Your task to perform on an android device: change the clock display to analog Image 0: 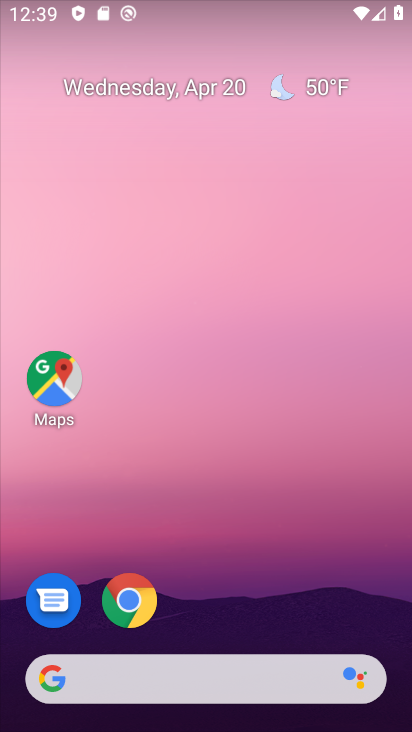
Step 0: drag from (203, 633) to (238, 61)
Your task to perform on an android device: change the clock display to analog Image 1: 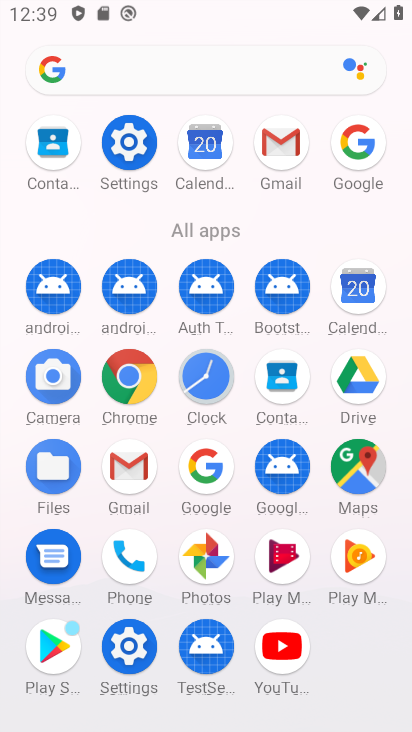
Step 1: click (194, 373)
Your task to perform on an android device: change the clock display to analog Image 2: 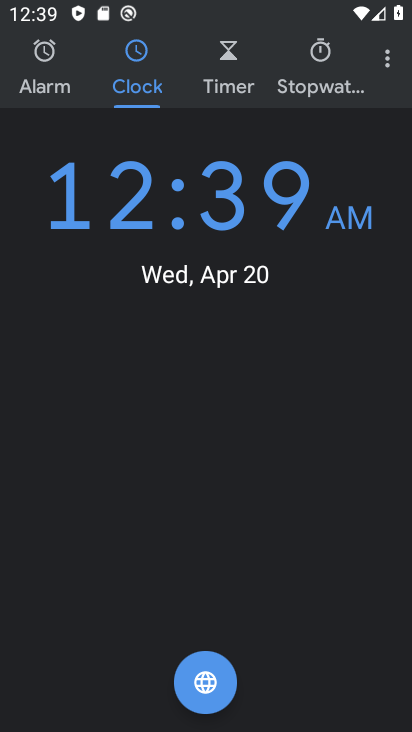
Step 2: click (385, 52)
Your task to perform on an android device: change the clock display to analog Image 3: 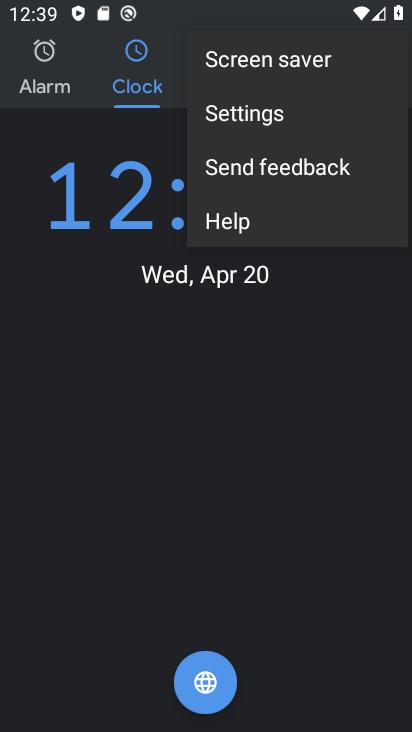
Step 3: click (256, 106)
Your task to perform on an android device: change the clock display to analog Image 4: 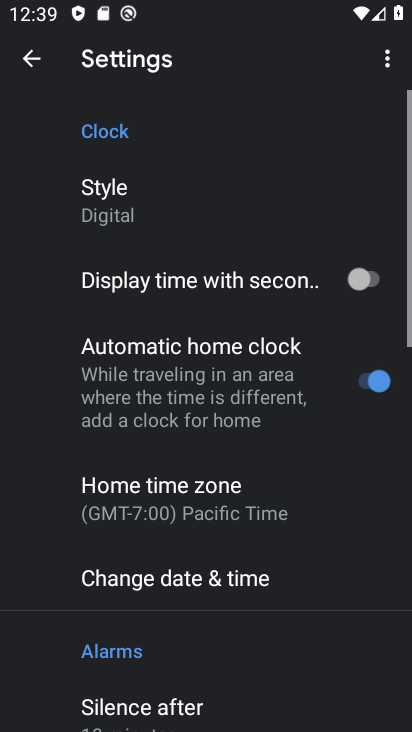
Step 4: click (193, 217)
Your task to perform on an android device: change the clock display to analog Image 5: 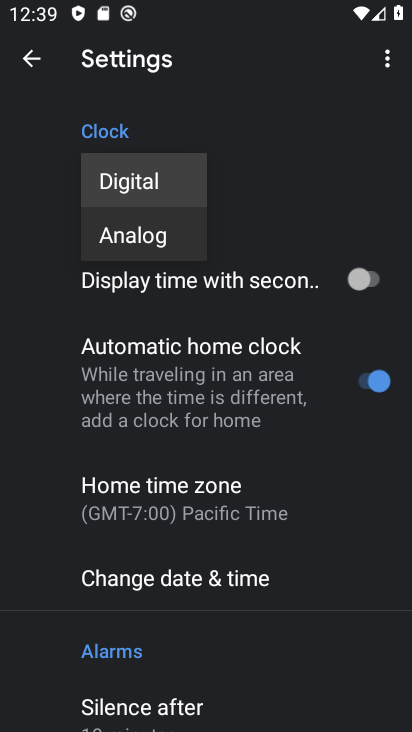
Step 5: click (130, 231)
Your task to perform on an android device: change the clock display to analog Image 6: 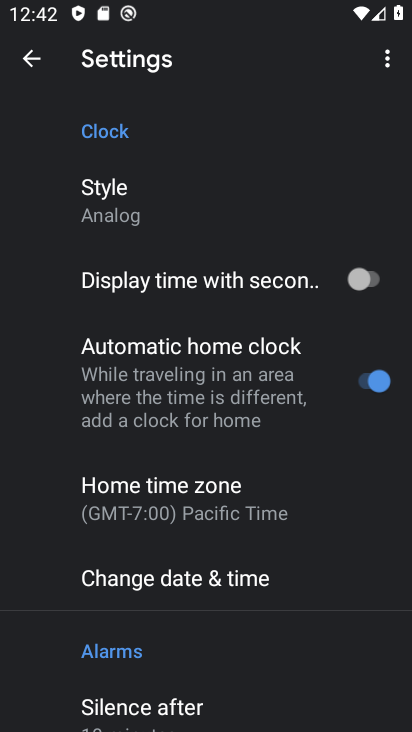
Step 6: task complete